Your task to perform on an android device: Open a new window in the chrome app Image 0: 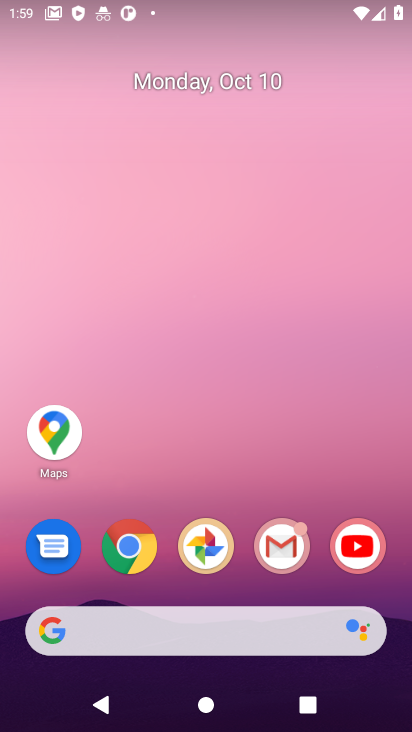
Step 0: click (122, 547)
Your task to perform on an android device: Open a new window in the chrome app Image 1: 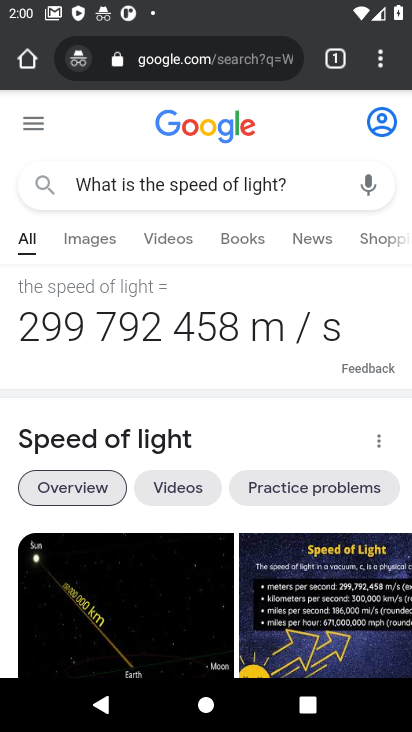
Step 1: click (346, 61)
Your task to perform on an android device: Open a new window in the chrome app Image 2: 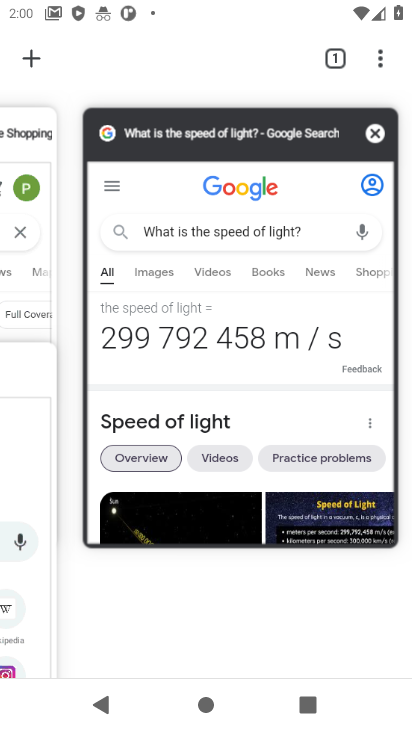
Step 2: click (45, 50)
Your task to perform on an android device: Open a new window in the chrome app Image 3: 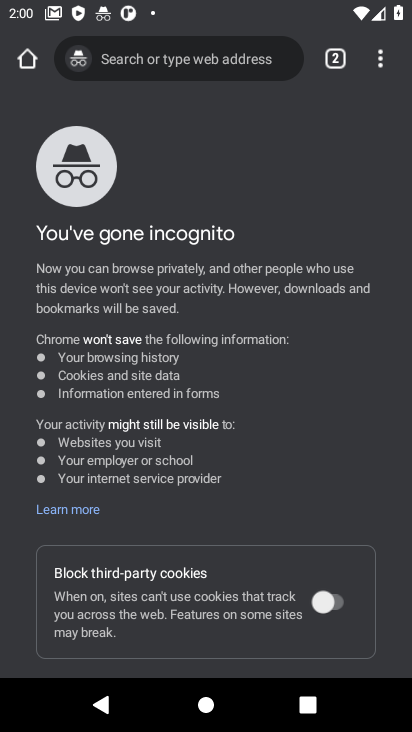
Step 3: task complete